Your task to perform on an android device: move a message to another label in the gmail app Image 0: 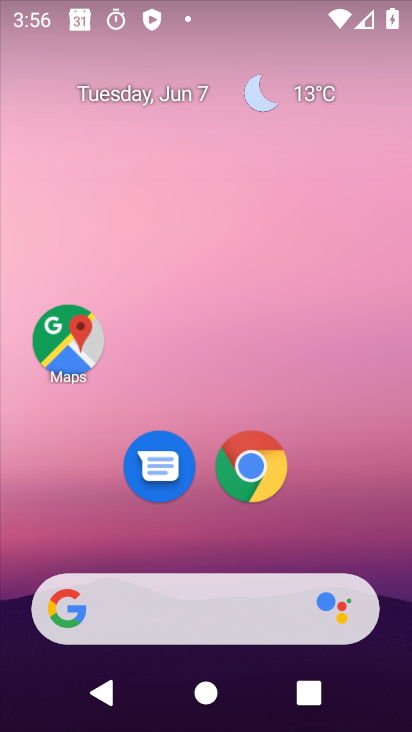
Step 0: drag from (342, 538) to (277, 154)
Your task to perform on an android device: move a message to another label in the gmail app Image 1: 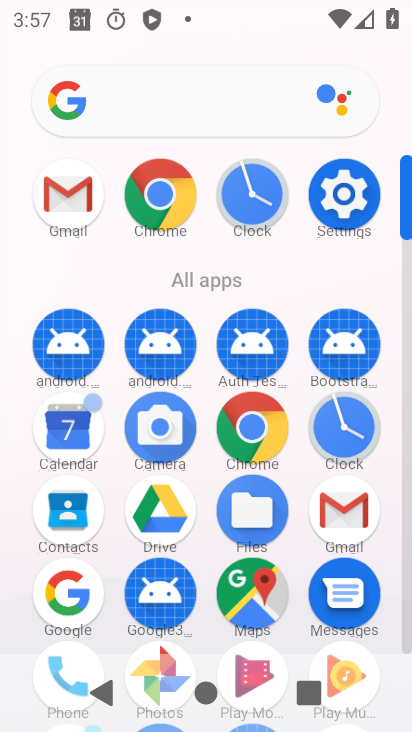
Step 1: click (80, 179)
Your task to perform on an android device: move a message to another label in the gmail app Image 2: 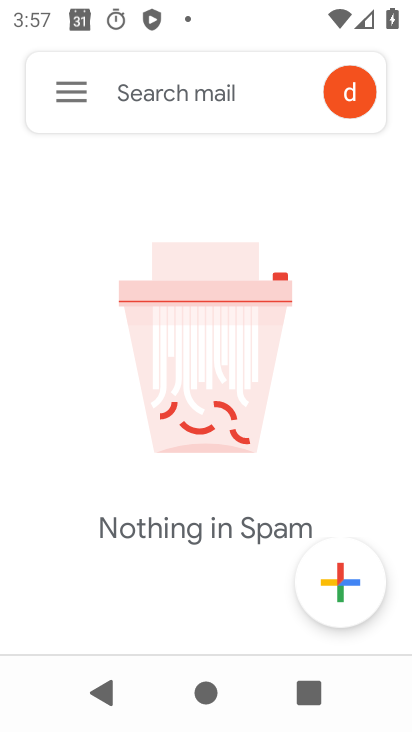
Step 2: click (82, 112)
Your task to perform on an android device: move a message to another label in the gmail app Image 3: 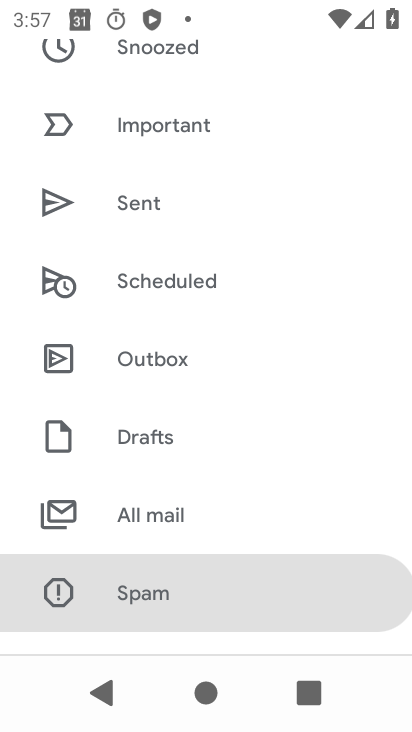
Step 3: click (195, 541)
Your task to perform on an android device: move a message to another label in the gmail app Image 4: 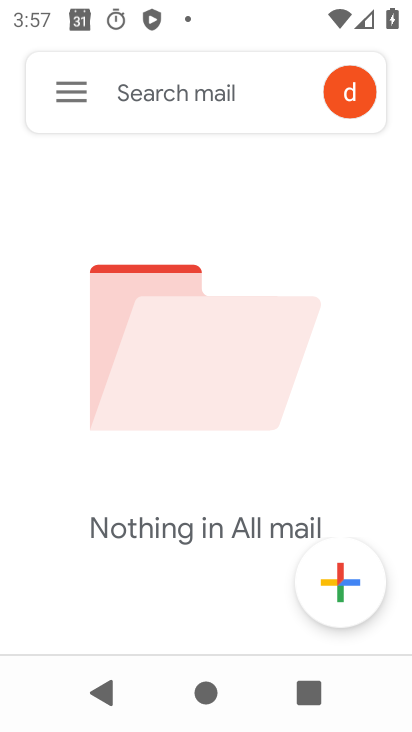
Step 4: task complete